Your task to perform on an android device: Open calendar and show me the fourth week of next month Image 0: 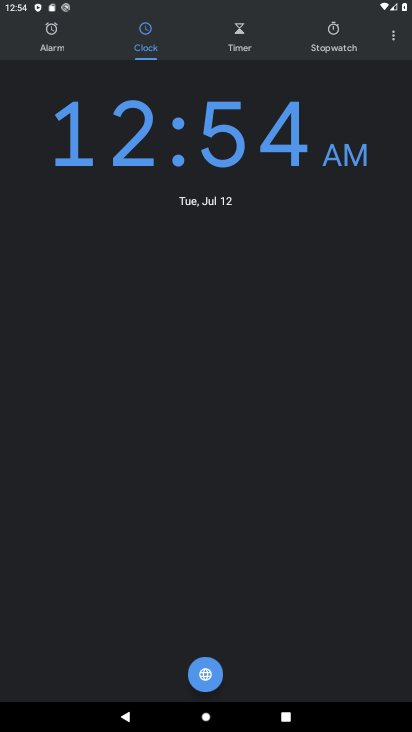
Step 0: drag from (343, 687) to (386, 403)
Your task to perform on an android device: Open calendar and show me the fourth week of next month Image 1: 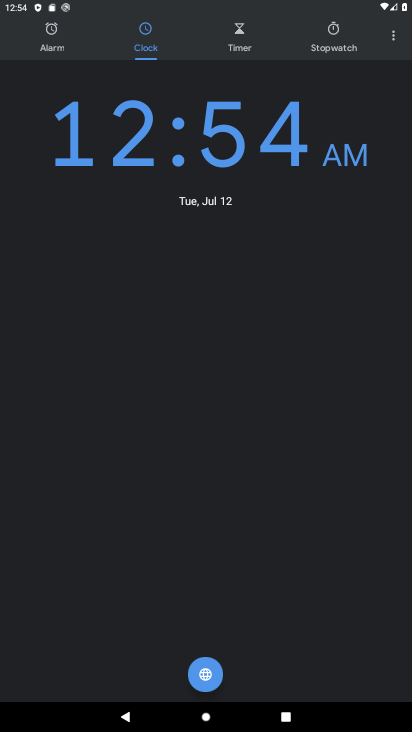
Step 1: press home button
Your task to perform on an android device: Open calendar and show me the fourth week of next month Image 2: 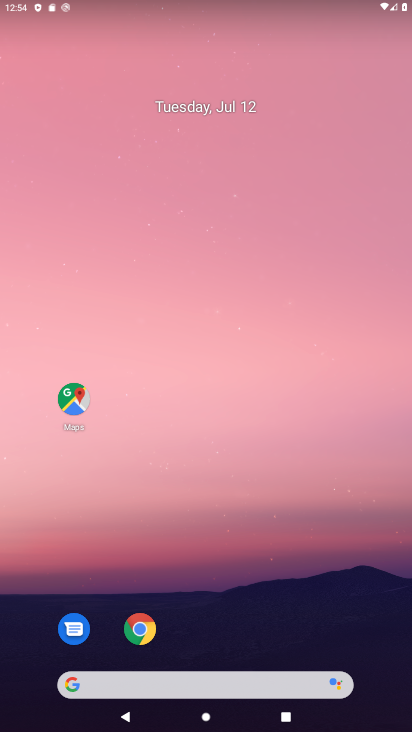
Step 2: drag from (273, 667) to (369, 232)
Your task to perform on an android device: Open calendar and show me the fourth week of next month Image 3: 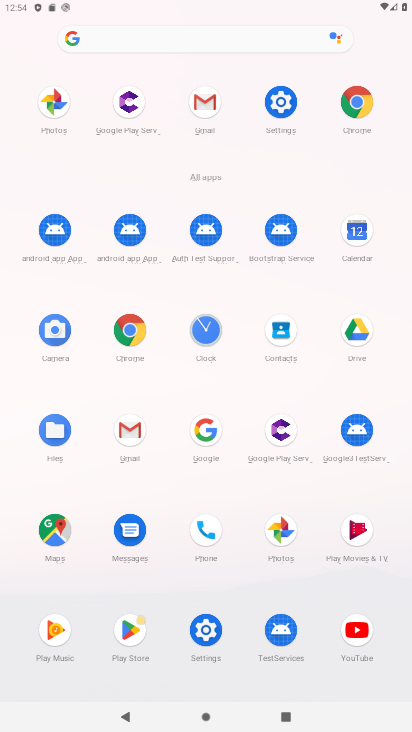
Step 3: click (351, 227)
Your task to perform on an android device: Open calendar and show me the fourth week of next month Image 4: 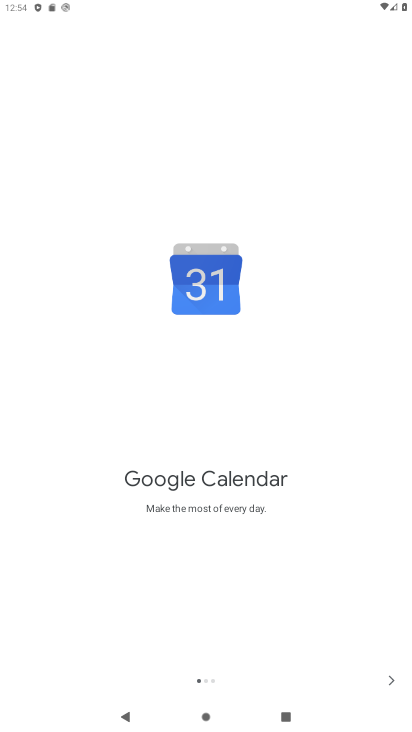
Step 4: click (395, 677)
Your task to perform on an android device: Open calendar and show me the fourth week of next month Image 5: 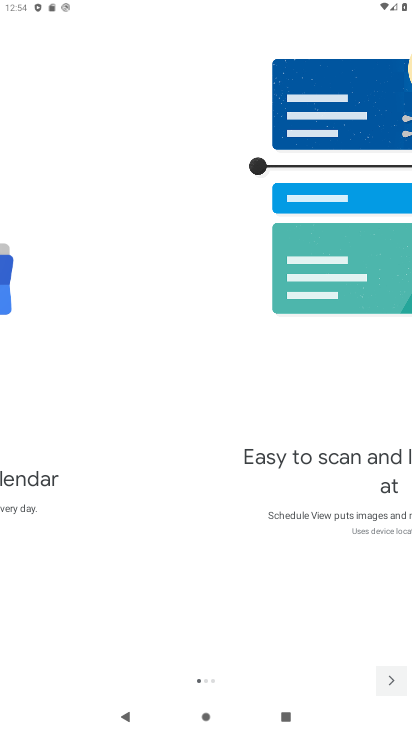
Step 5: click (396, 677)
Your task to perform on an android device: Open calendar and show me the fourth week of next month Image 6: 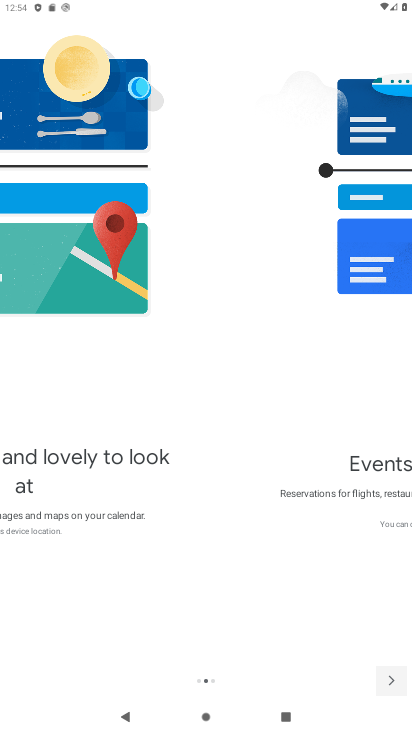
Step 6: click (396, 677)
Your task to perform on an android device: Open calendar and show me the fourth week of next month Image 7: 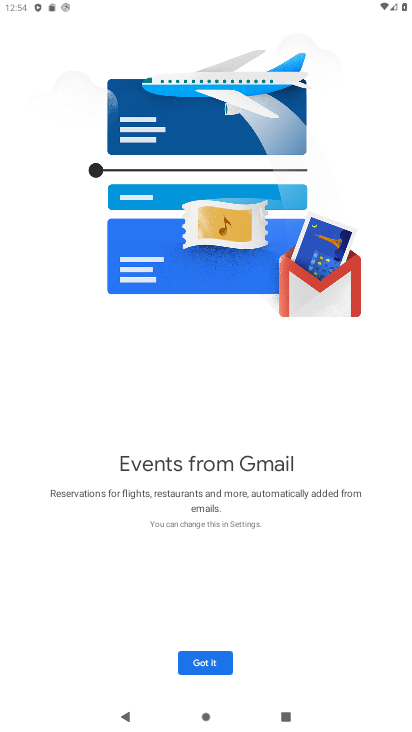
Step 7: click (213, 659)
Your task to perform on an android device: Open calendar and show me the fourth week of next month Image 8: 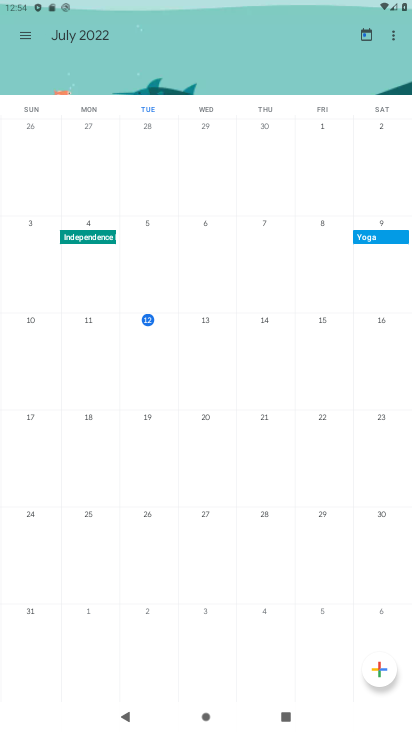
Step 8: click (13, 41)
Your task to perform on an android device: Open calendar and show me the fourth week of next month Image 9: 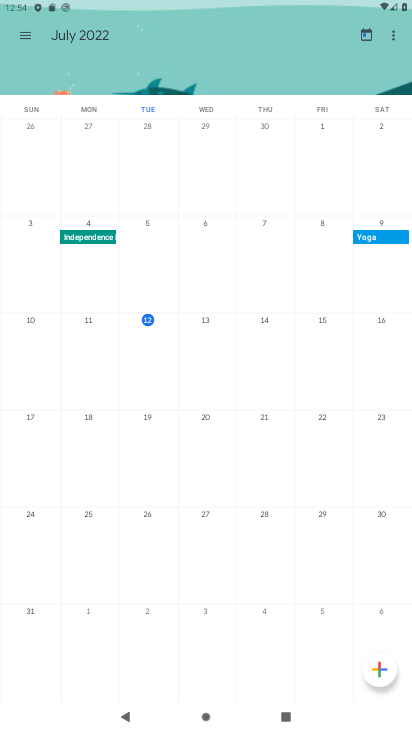
Step 9: click (30, 40)
Your task to perform on an android device: Open calendar and show me the fourth week of next month Image 10: 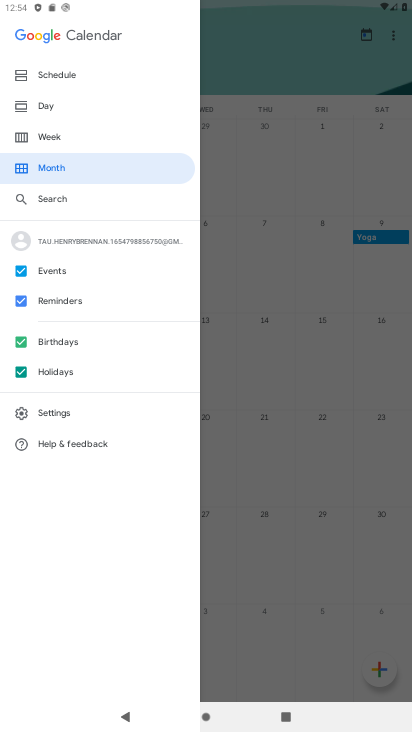
Step 10: click (57, 134)
Your task to perform on an android device: Open calendar and show me the fourth week of next month Image 11: 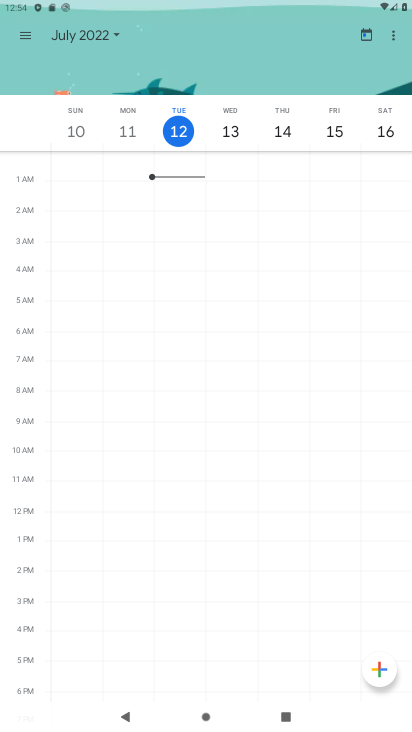
Step 11: click (107, 33)
Your task to perform on an android device: Open calendar and show me the fourth week of next month Image 12: 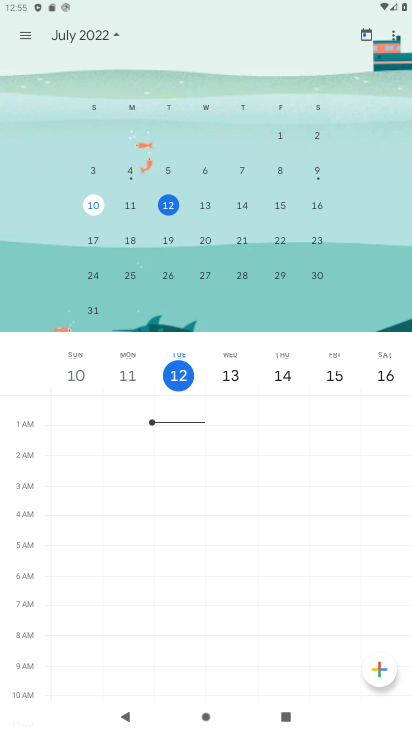
Step 12: drag from (324, 191) to (39, 203)
Your task to perform on an android device: Open calendar and show me the fourth week of next month Image 13: 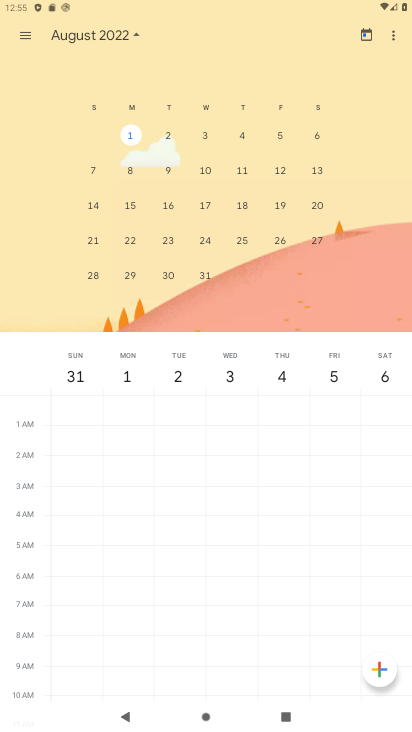
Step 13: click (164, 239)
Your task to perform on an android device: Open calendar and show me the fourth week of next month Image 14: 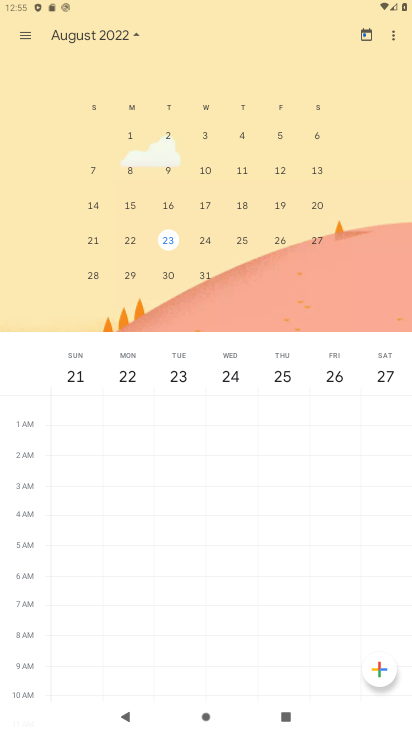
Step 14: click (238, 449)
Your task to perform on an android device: Open calendar and show me the fourth week of next month Image 15: 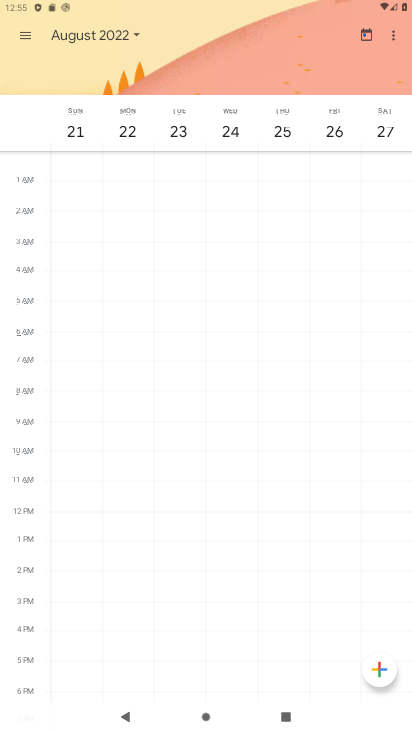
Step 15: task complete